Your task to perform on an android device: Go to ESPN.com Image 0: 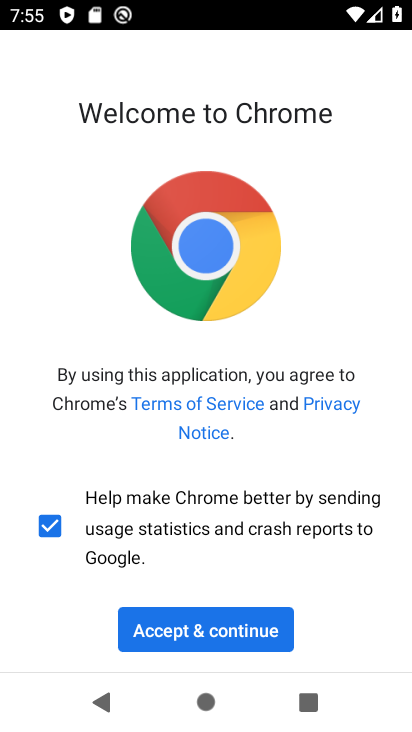
Step 0: click (179, 631)
Your task to perform on an android device: Go to ESPN.com Image 1: 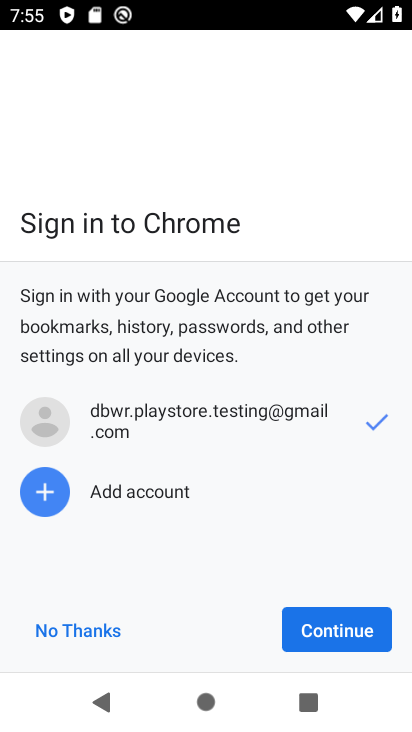
Step 1: click (315, 637)
Your task to perform on an android device: Go to ESPN.com Image 2: 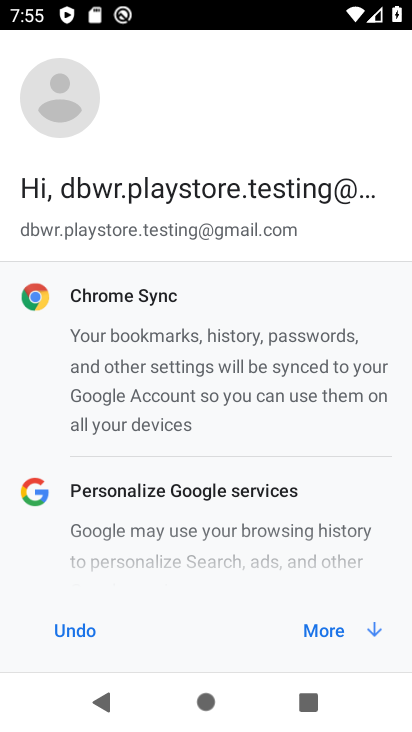
Step 2: click (324, 635)
Your task to perform on an android device: Go to ESPN.com Image 3: 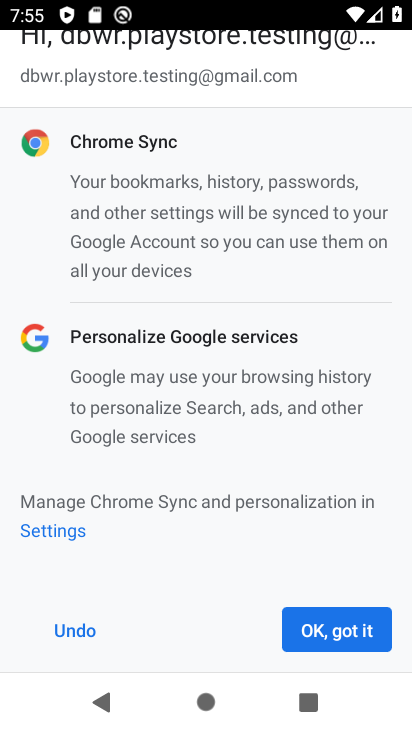
Step 3: click (315, 632)
Your task to perform on an android device: Go to ESPN.com Image 4: 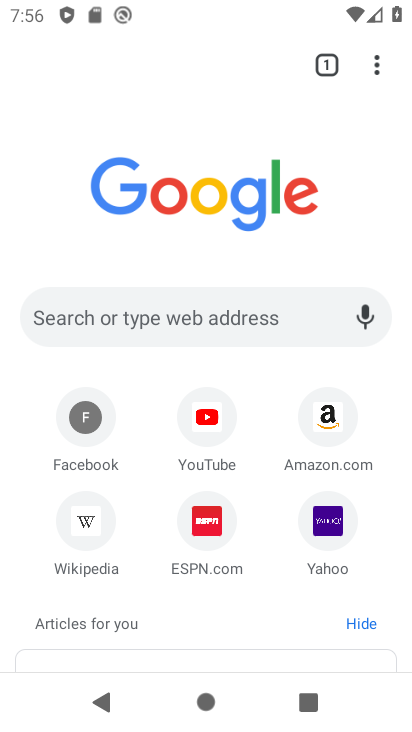
Step 4: click (198, 519)
Your task to perform on an android device: Go to ESPN.com Image 5: 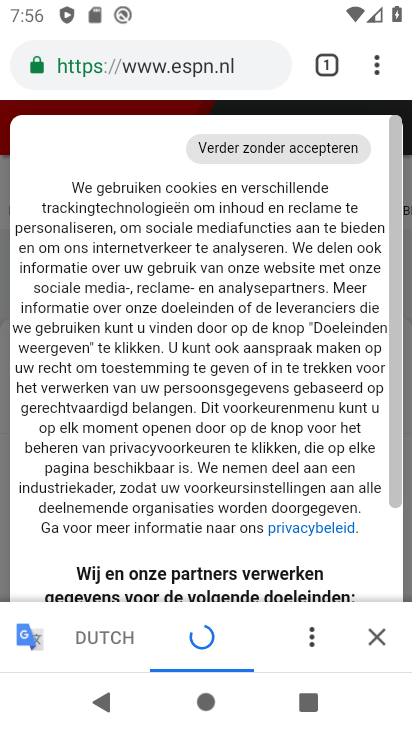
Step 5: drag from (215, 528) to (234, 178)
Your task to perform on an android device: Go to ESPN.com Image 6: 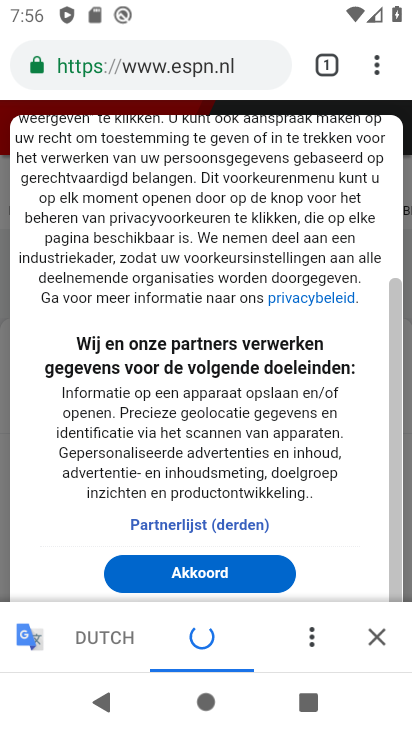
Step 6: click (207, 571)
Your task to perform on an android device: Go to ESPN.com Image 7: 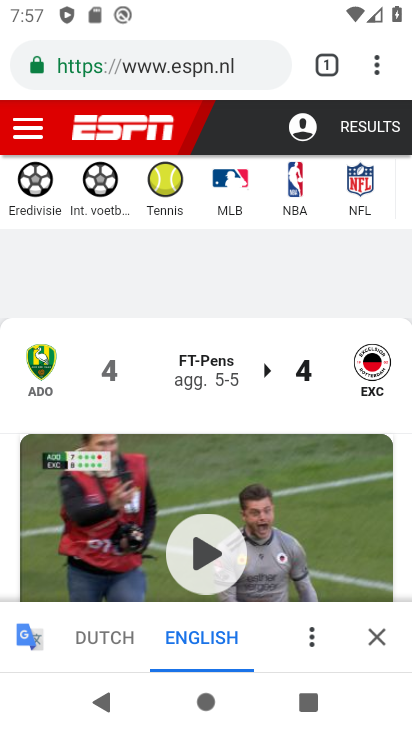
Step 7: task complete